Your task to perform on an android device: make emails show in primary in the gmail app Image 0: 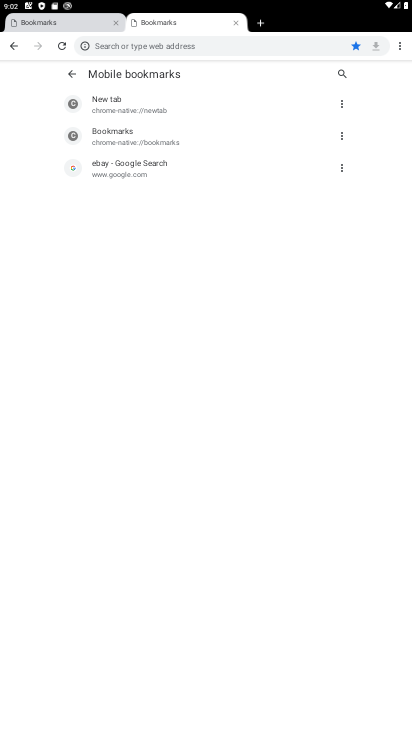
Step 0: drag from (201, 618) to (400, 690)
Your task to perform on an android device: make emails show in primary in the gmail app Image 1: 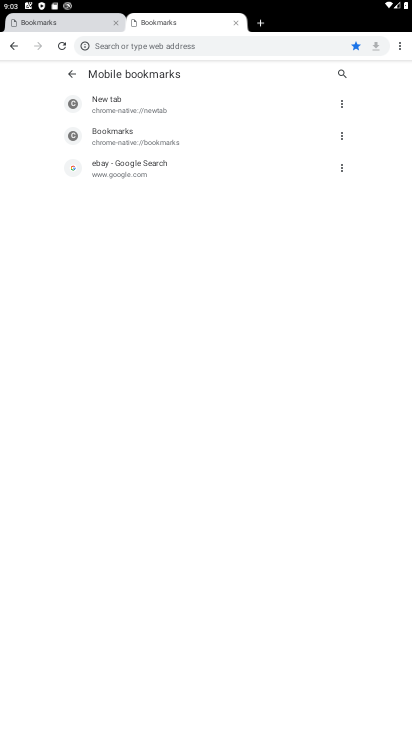
Step 1: drag from (174, 269) to (230, 606)
Your task to perform on an android device: make emails show in primary in the gmail app Image 2: 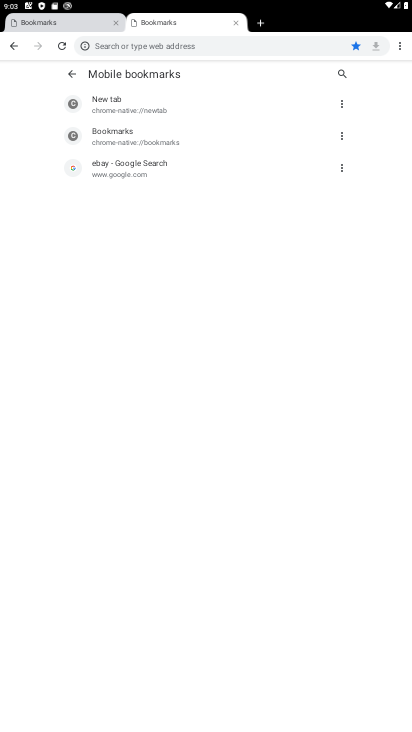
Step 2: drag from (279, 623) to (232, 323)
Your task to perform on an android device: make emails show in primary in the gmail app Image 3: 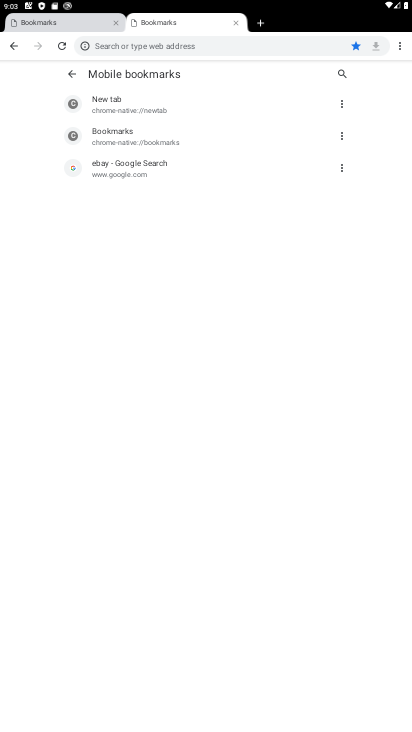
Step 3: drag from (349, 441) to (311, 229)
Your task to perform on an android device: make emails show in primary in the gmail app Image 4: 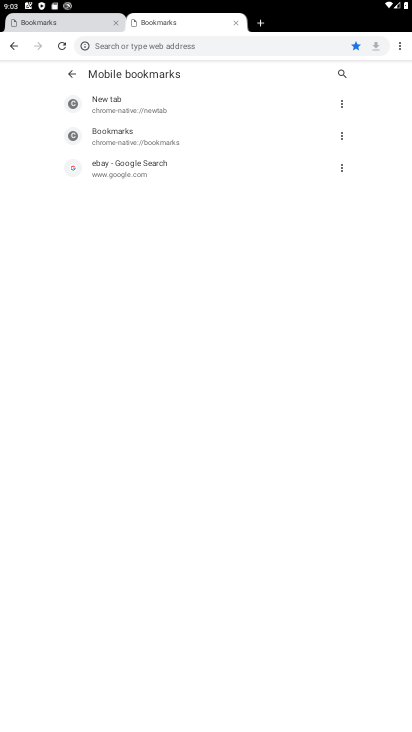
Step 4: press home button
Your task to perform on an android device: make emails show in primary in the gmail app Image 5: 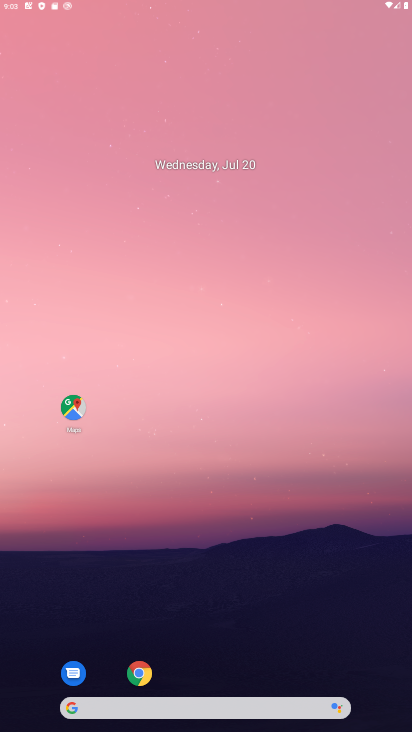
Step 5: drag from (146, 648) to (188, 250)
Your task to perform on an android device: make emails show in primary in the gmail app Image 6: 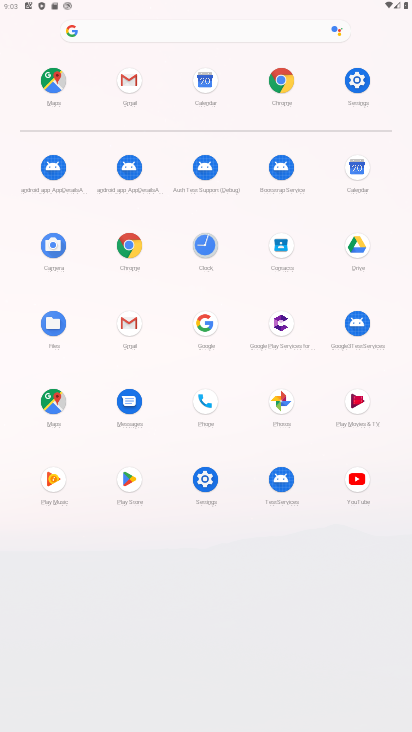
Step 6: click (135, 325)
Your task to perform on an android device: make emails show in primary in the gmail app Image 7: 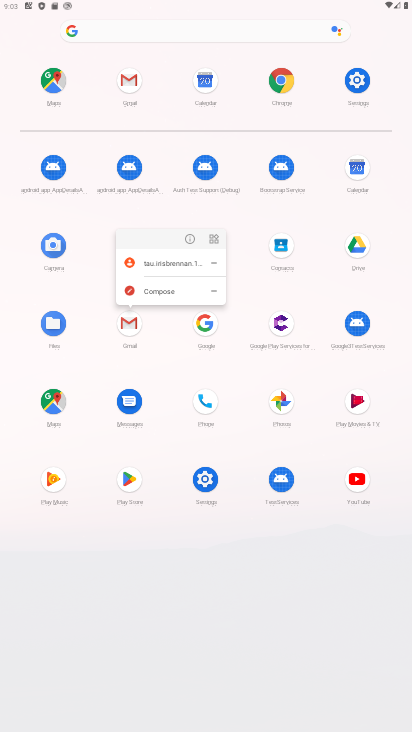
Step 7: click (193, 242)
Your task to perform on an android device: make emails show in primary in the gmail app Image 8: 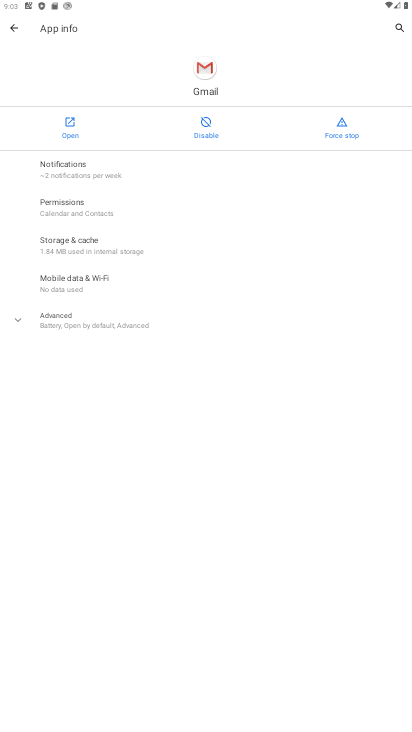
Step 8: click (72, 130)
Your task to perform on an android device: make emails show in primary in the gmail app Image 9: 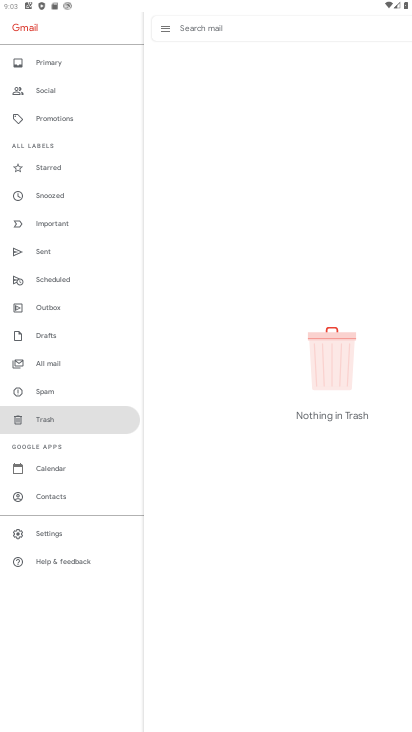
Step 9: task complete